Your task to perform on an android device: Open accessibility settings Image 0: 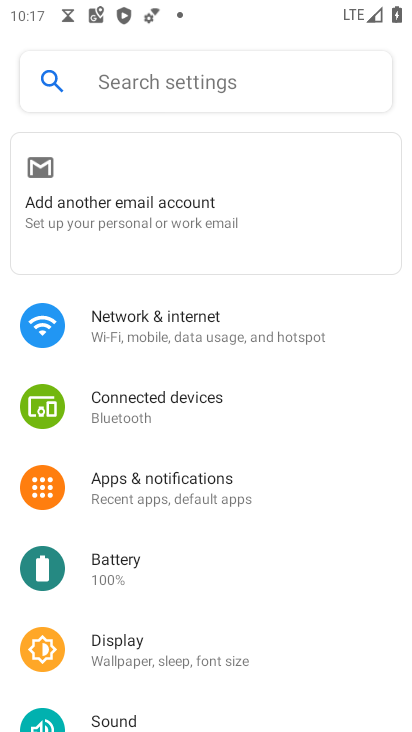
Step 0: press home button
Your task to perform on an android device: Open accessibility settings Image 1: 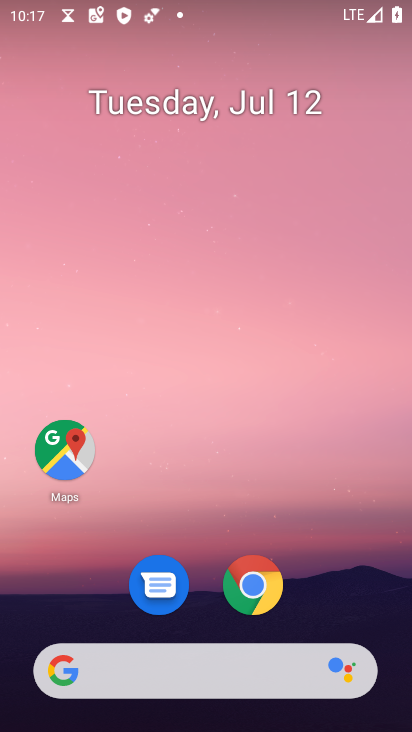
Step 1: drag from (183, 656) to (308, 72)
Your task to perform on an android device: Open accessibility settings Image 2: 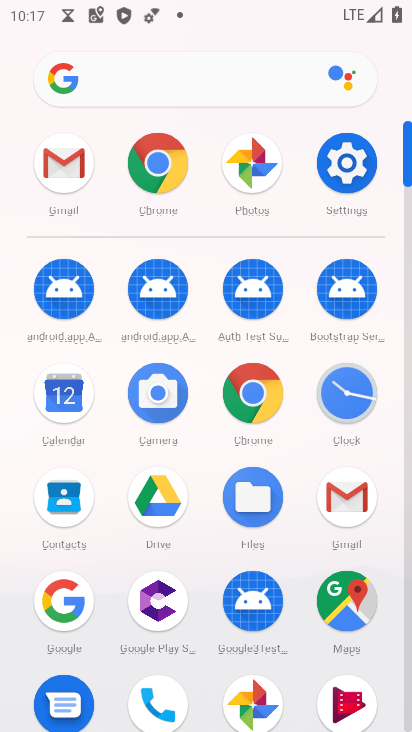
Step 2: click (346, 171)
Your task to perform on an android device: Open accessibility settings Image 3: 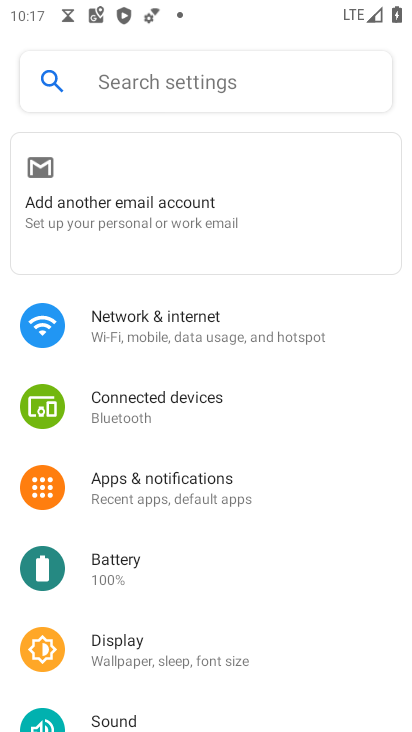
Step 3: drag from (286, 653) to (397, 54)
Your task to perform on an android device: Open accessibility settings Image 4: 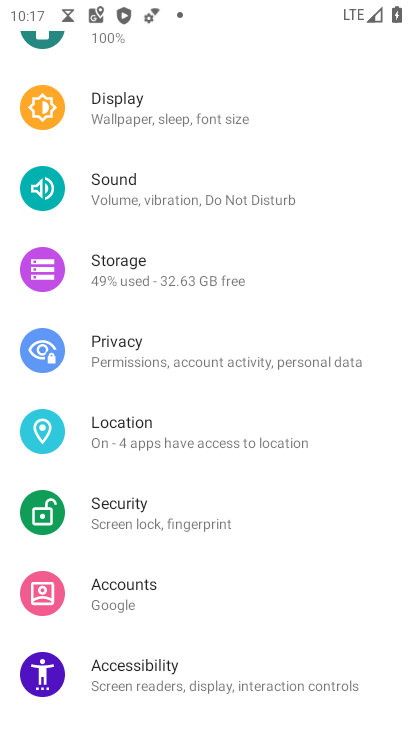
Step 4: click (157, 668)
Your task to perform on an android device: Open accessibility settings Image 5: 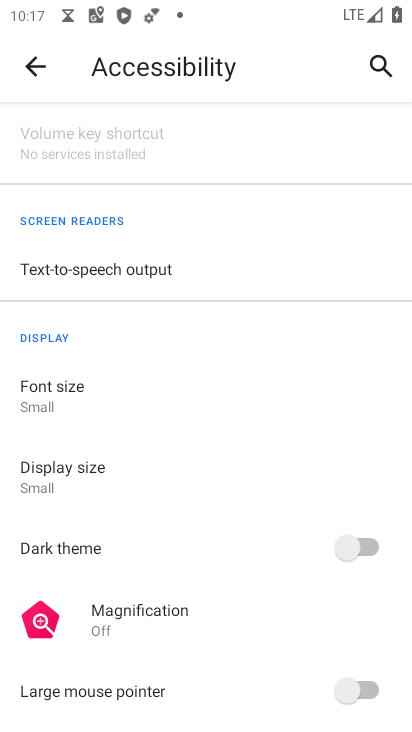
Step 5: task complete